Your task to perform on an android device: Open notification settings Image 0: 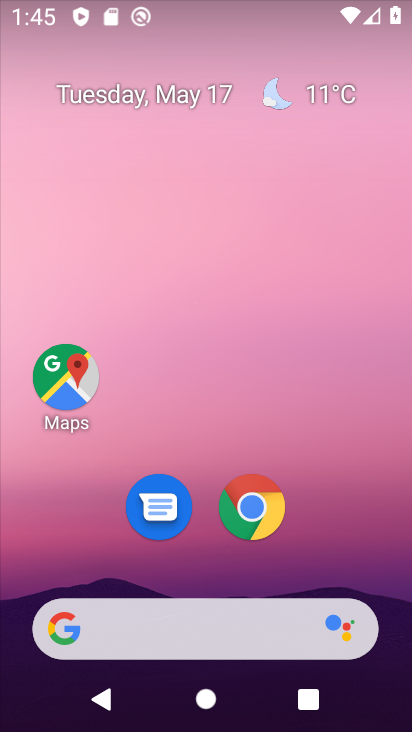
Step 0: drag from (158, 576) to (404, 133)
Your task to perform on an android device: Open notification settings Image 1: 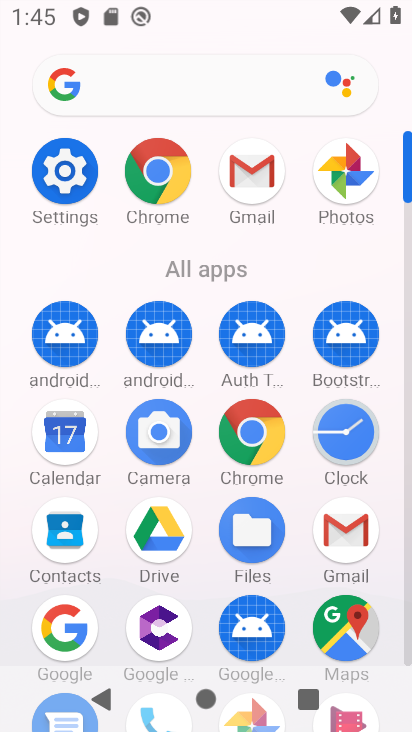
Step 1: click (56, 172)
Your task to perform on an android device: Open notification settings Image 2: 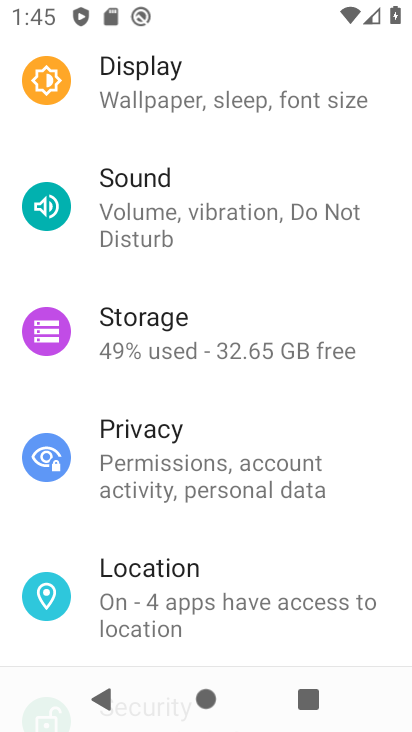
Step 2: drag from (162, 157) to (113, 657)
Your task to perform on an android device: Open notification settings Image 3: 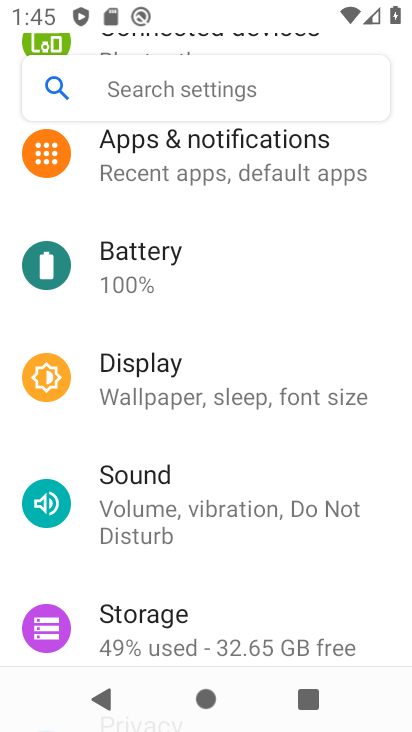
Step 3: click (220, 178)
Your task to perform on an android device: Open notification settings Image 4: 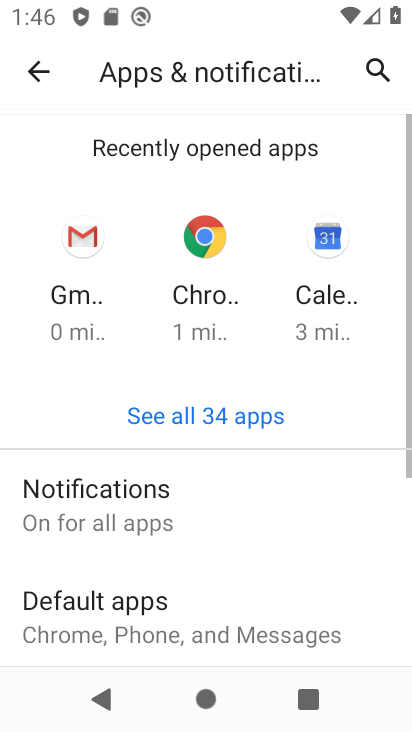
Step 4: task complete